Your task to perform on an android device: Open ESPN.com Image 0: 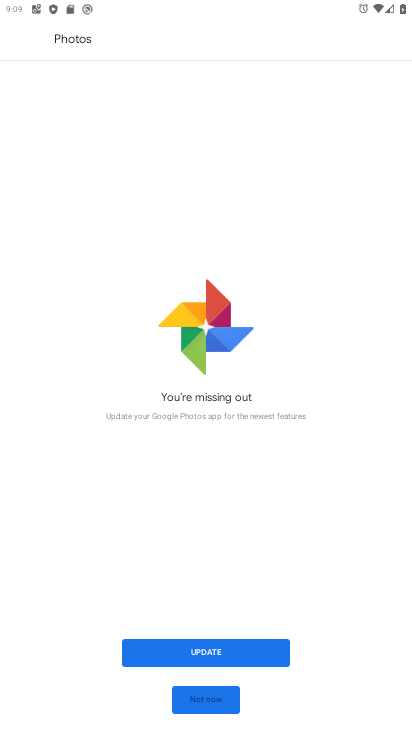
Step 0: press home button
Your task to perform on an android device: Open ESPN.com Image 1: 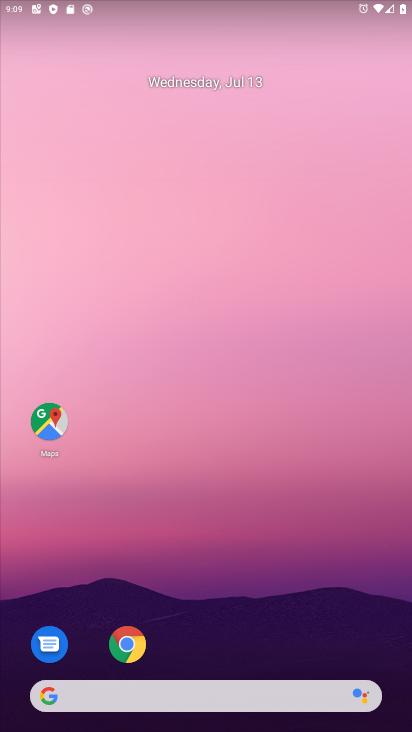
Step 1: drag from (200, 716) to (200, 163)
Your task to perform on an android device: Open ESPN.com Image 2: 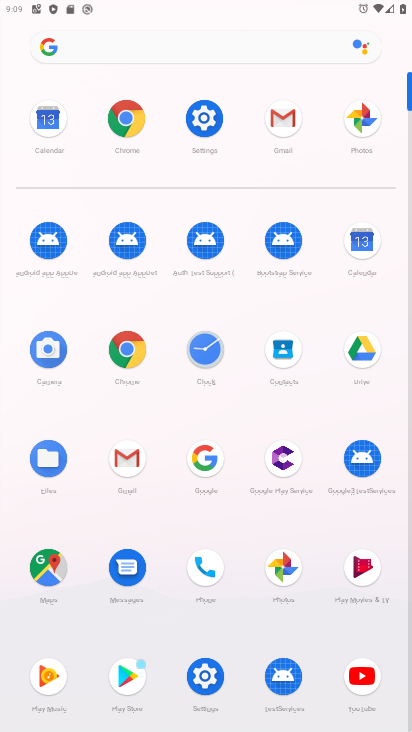
Step 2: click (124, 108)
Your task to perform on an android device: Open ESPN.com Image 3: 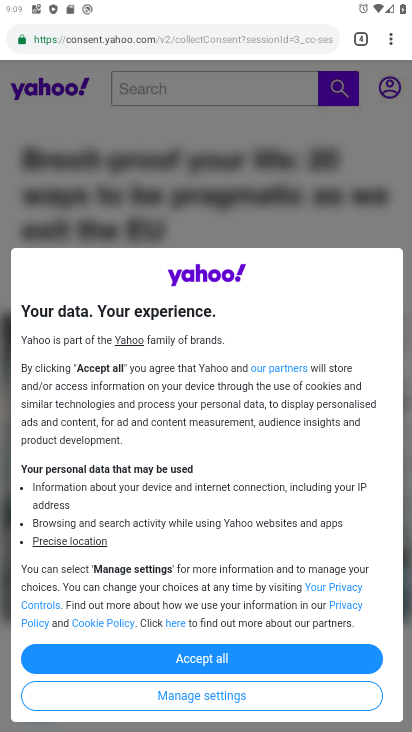
Step 3: click (394, 43)
Your task to perform on an android device: Open ESPN.com Image 4: 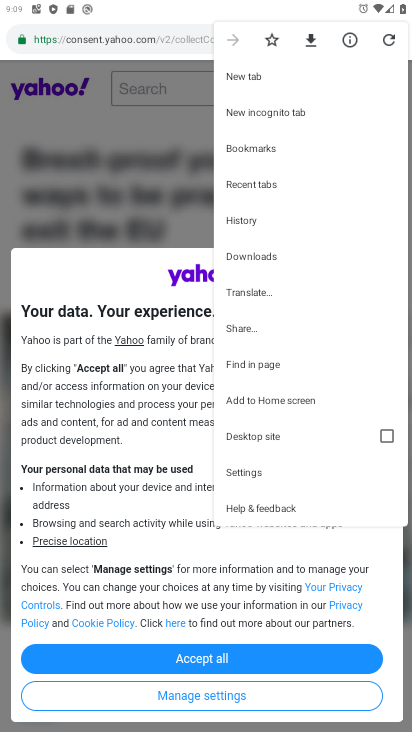
Step 4: click (245, 76)
Your task to perform on an android device: Open ESPN.com Image 5: 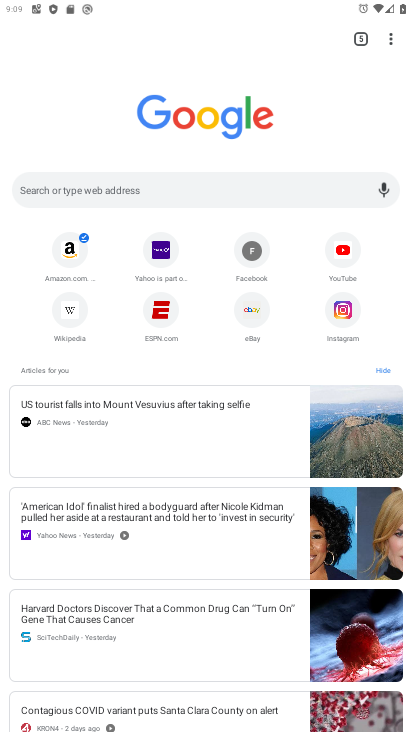
Step 5: click (164, 306)
Your task to perform on an android device: Open ESPN.com Image 6: 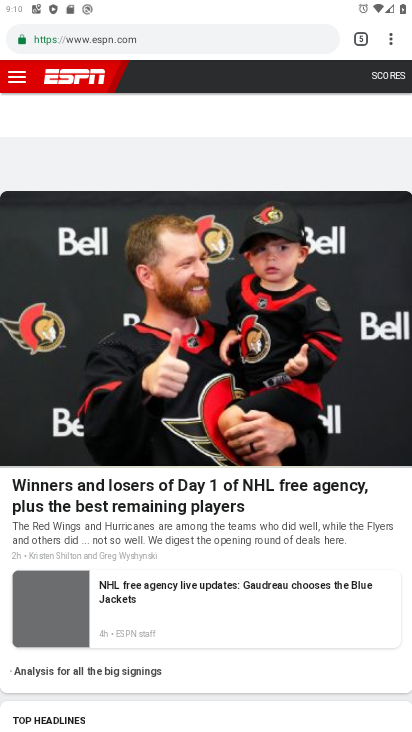
Step 6: task complete